Your task to perform on an android device: What is the recent news? Image 0: 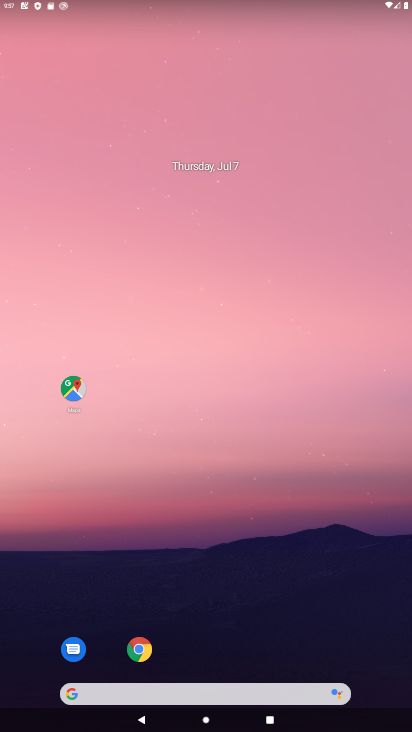
Step 0: drag from (289, 497) to (274, 385)
Your task to perform on an android device: What is the recent news? Image 1: 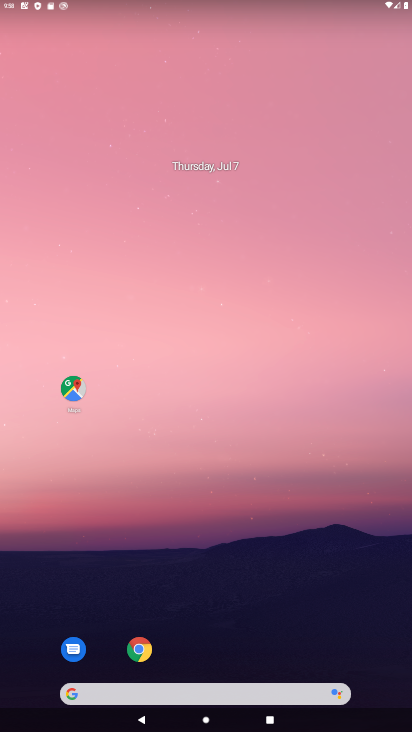
Step 1: click (187, 698)
Your task to perform on an android device: What is the recent news? Image 2: 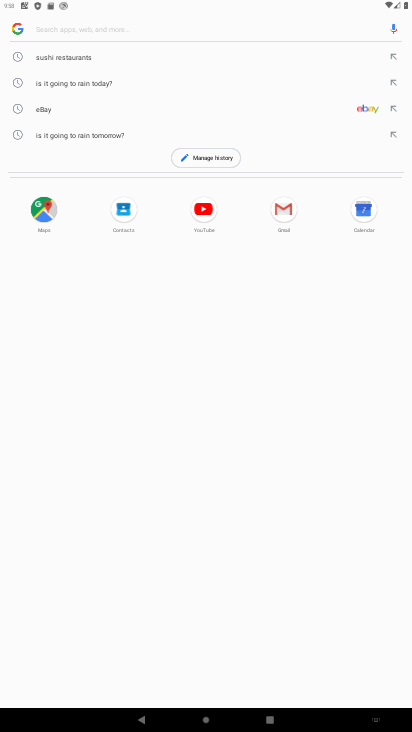
Step 2: click (49, 30)
Your task to perform on an android device: What is the recent news? Image 3: 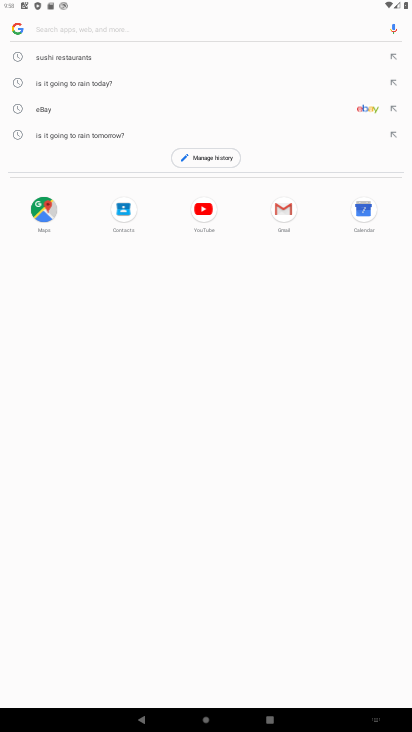
Step 3: type "What is the recent news?"
Your task to perform on an android device: What is the recent news? Image 4: 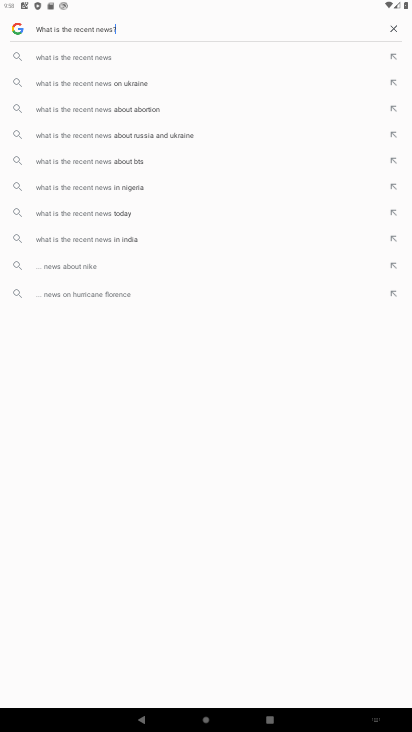
Step 4: press enter
Your task to perform on an android device: What is the recent news? Image 5: 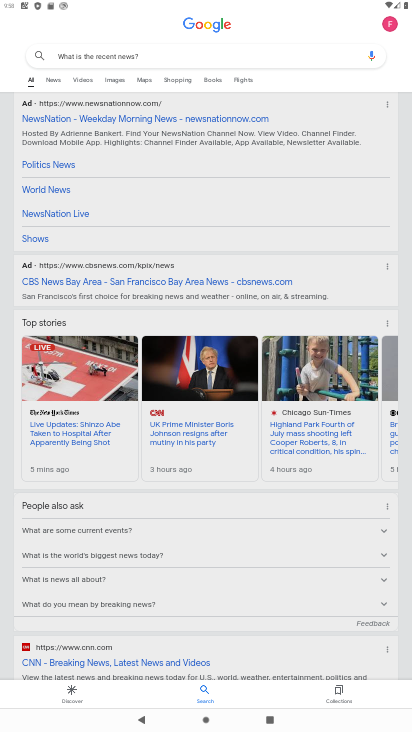
Step 5: task complete